Your task to perform on an android device: turn off wifi Image 0: 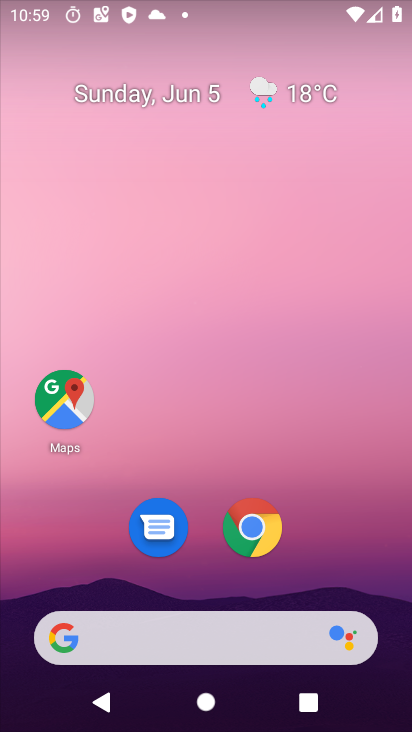
Step 0: drag from (331, 280) to (308, 1)
Your task to perform on an android device: turn off wifi Image 1: 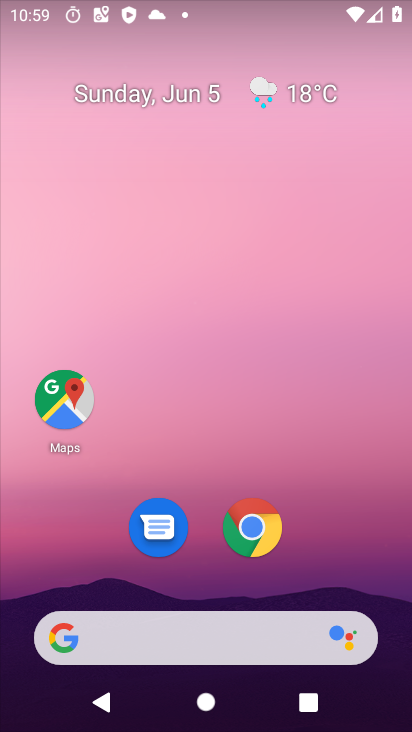
Step 1: drag from (364, 562) to (278, 2)
Your task to perform on an android device: turn off wifi Image 2: 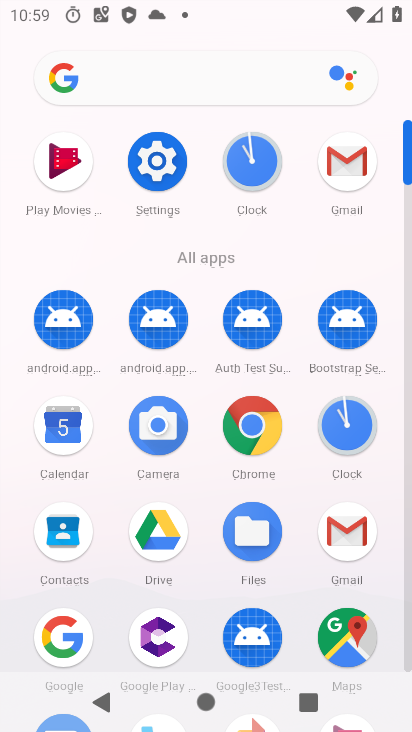
Step 2: click (171, 159)
Your task to perform on an android device: turn off wifi Image 3: 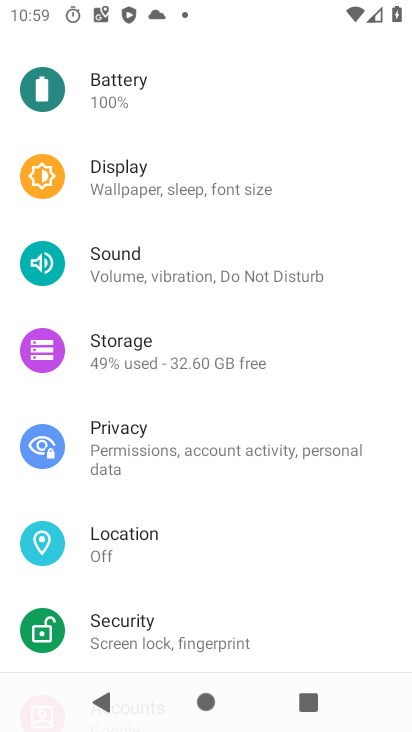
Step 3: drag from (213, 118) to (243, 717)
Your task to perform on an android device: turn off wifi Image 4: 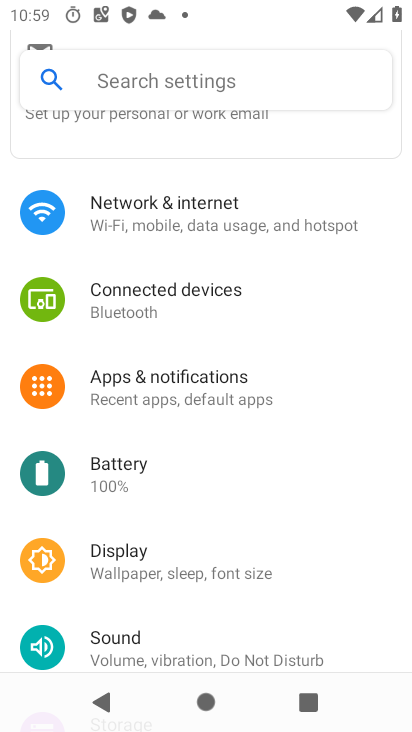
Step 4: click (187, 210)
Your task to perform on an android device: turn off wifi Image 5: 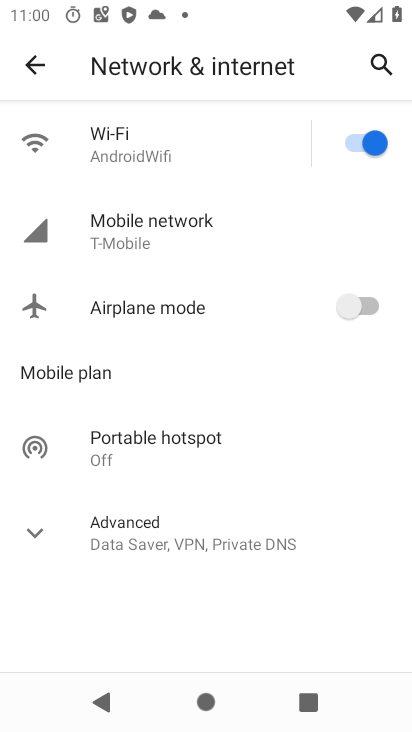
Step 5: click (376, 140)
Your task to perform on an android device: turn off wifi Image 6: 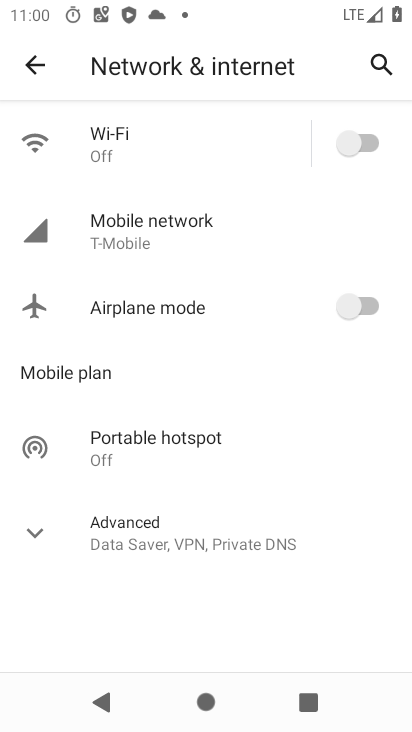
Step 6: task complete